Your task to perform on an android device: turn smart compose on in the gmail app Image 0: 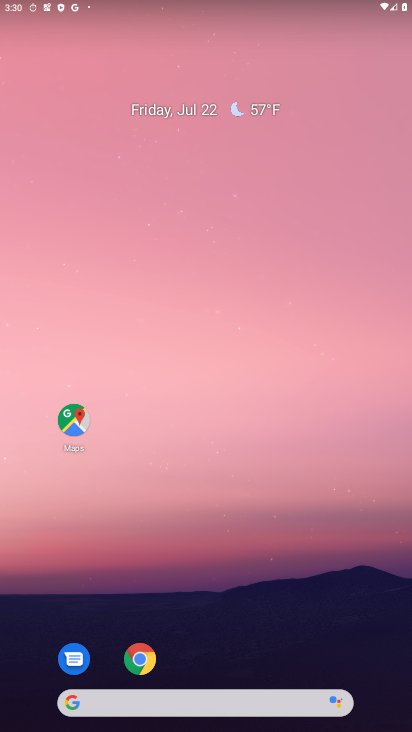
Step 0: drag from (263, 665) to (367, 18)
Your task to perform on an android device: turn smart compose on in the gmail app Image 1: 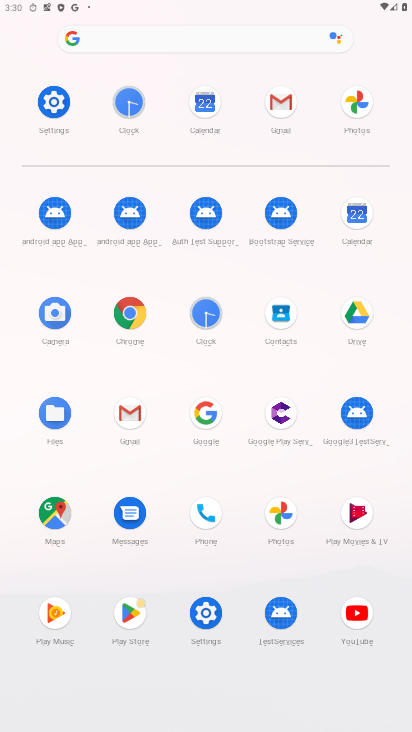
Step 1: click (277, 113)
Your task to perform on an android device: turn smart compose on in the gmail app Image 2: 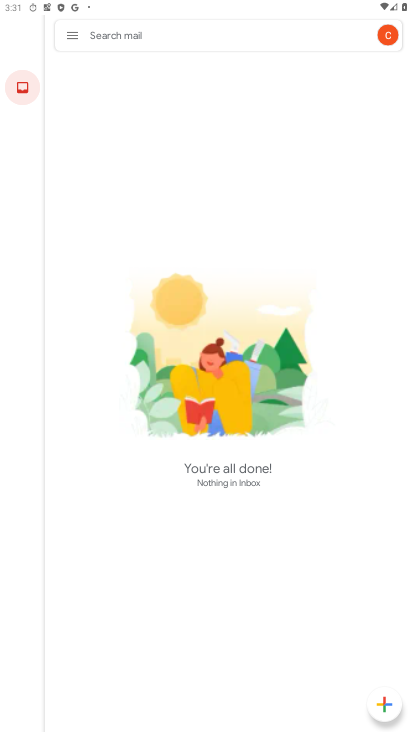
Step 2: click (74, 40)
Your task to perform on an android device: turn smart compose on in the gmail app Image 3: 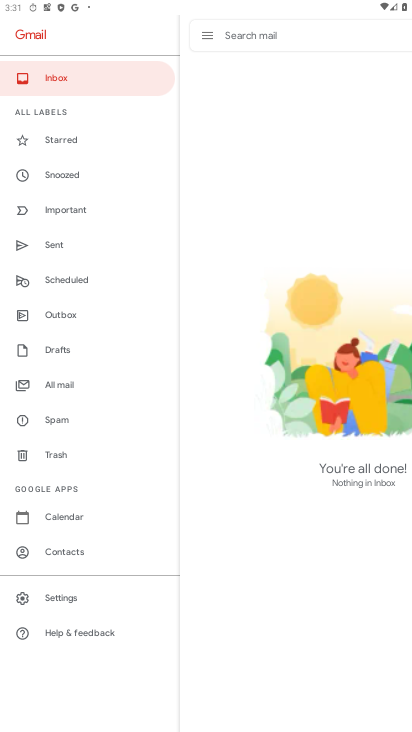
Step 3: click (49, 595)
Your task to perform on an android device: turn smart compose on in the gmail app Image 4: 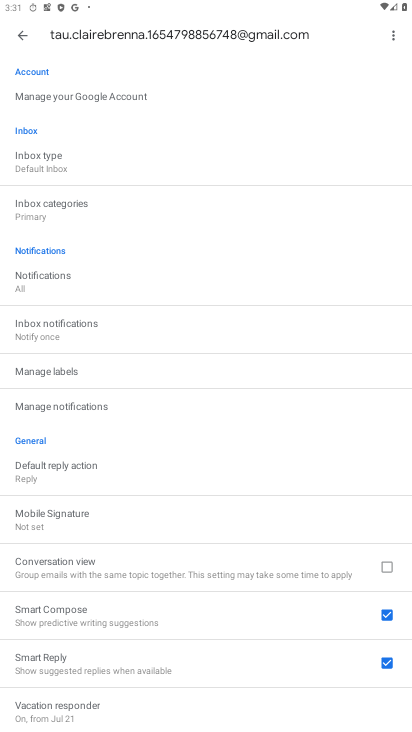
Step 4: task complete